Your task to perform on an android device: stop showing notifications on the lock screen Image 0: 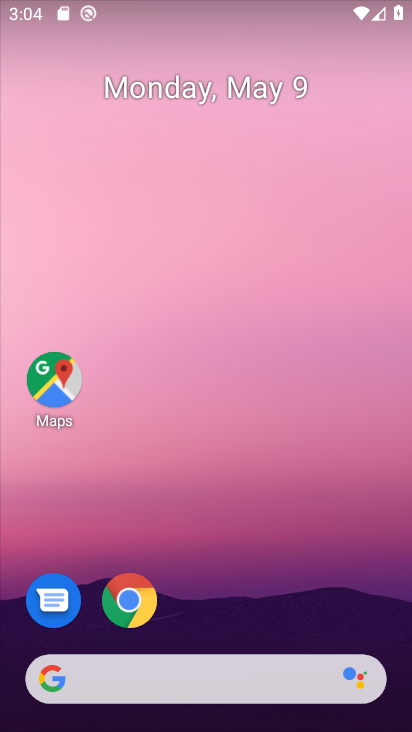
Step 0: drag from (261, 560) to (283, 143)
Your task to perform on an android device: stop showing notifications on the lock screen Image 1: 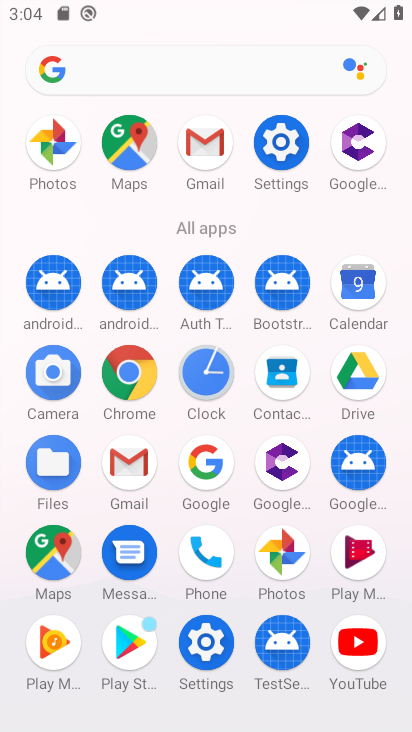
Step 1: click (206, 660)
Your task to perform on an android device: stop showing notifications on the lock screen Image 2: 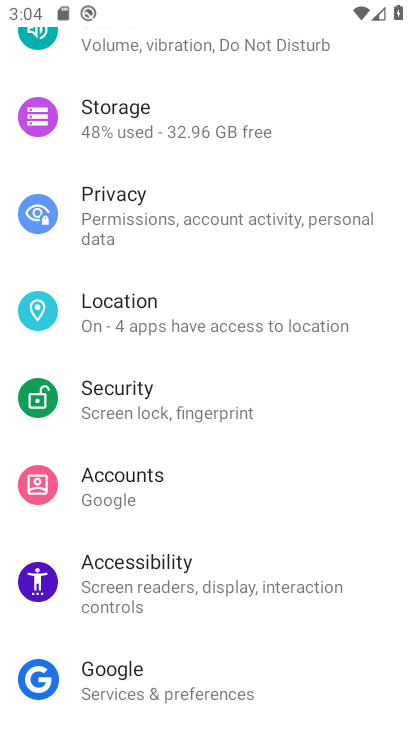
Step 2: drag from (245, 268) to (245, 554)
Your task to perform on an android device: stop showing notifications on the lock screen Image 3: 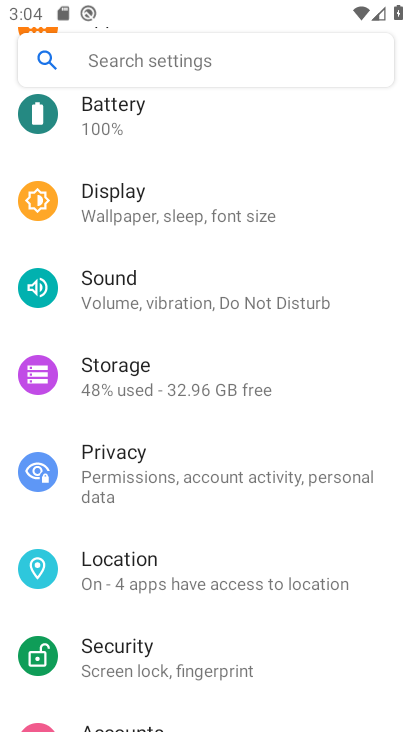
Step 3: drag from (218, 285) to (243, 608)
Your task to perform on an android device: stop showing notifications on the lock screen Image 4: 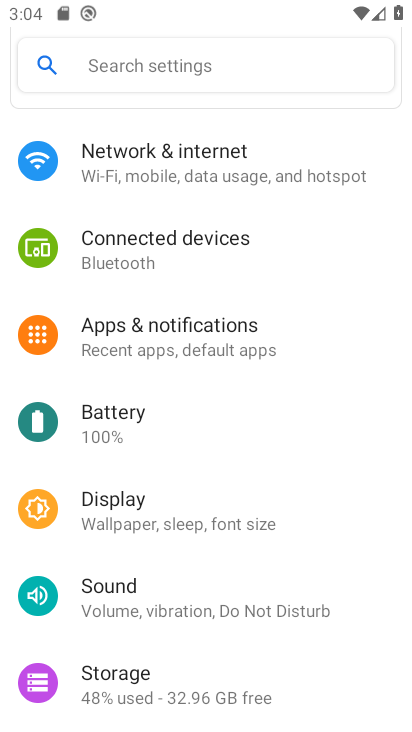
Step 4: click (207, 333)
Your task to perform on an android device: stop showing notifications on the lock screen Image 5: 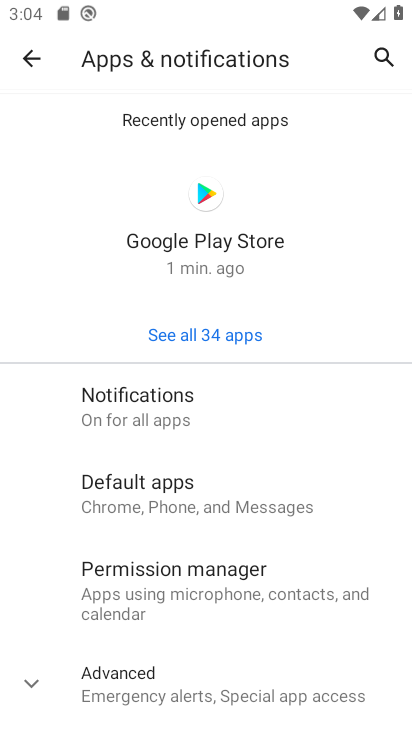
Step 5: click (161, 414)
Your task to perform on an android device: stop showing notifications on the lock screen Image 6: 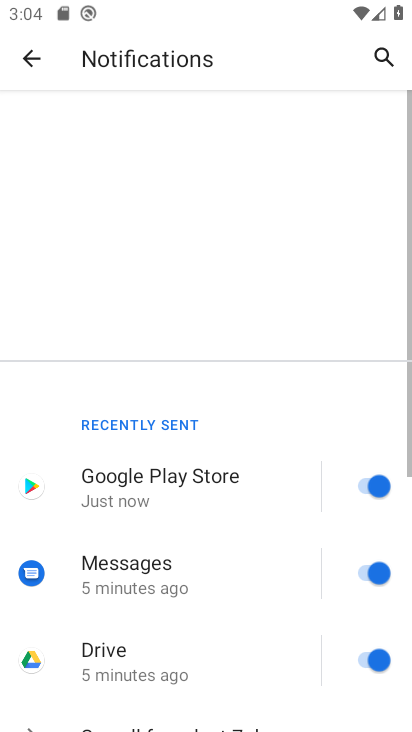
Step 6: drag from (184, 533) to (217, 221)
Your task to perform on an android device: stop showing notifications on the lock screen Image 7: 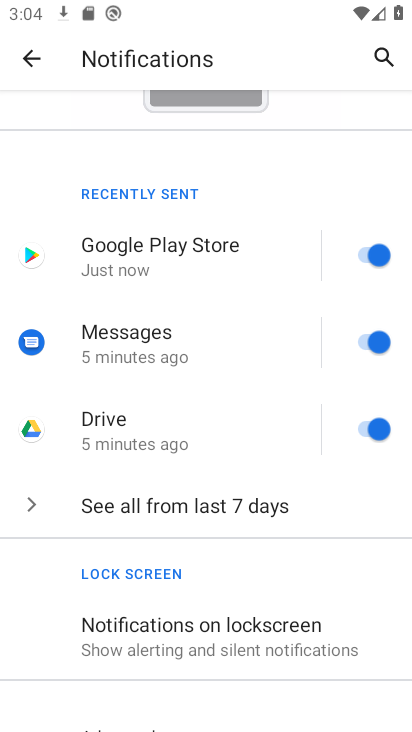
Step 7: click (177, 641)
Your task to perform on an android device: stop showing notifications on the lock screen Image 8: 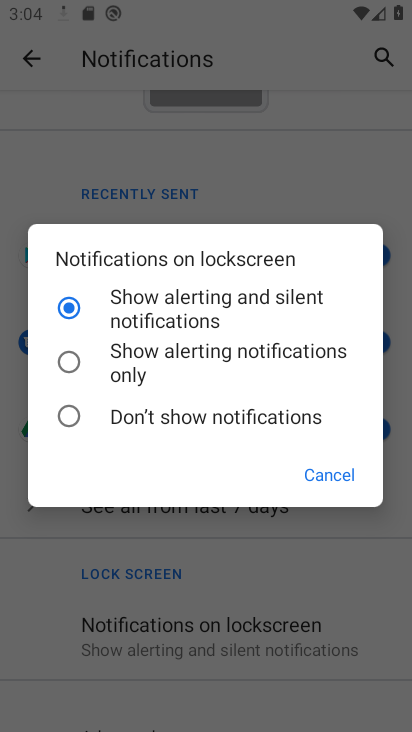
Step 8: click (206, 422)
Your task to perform on an android device: stop showing notifications on the lock screen Image 9: 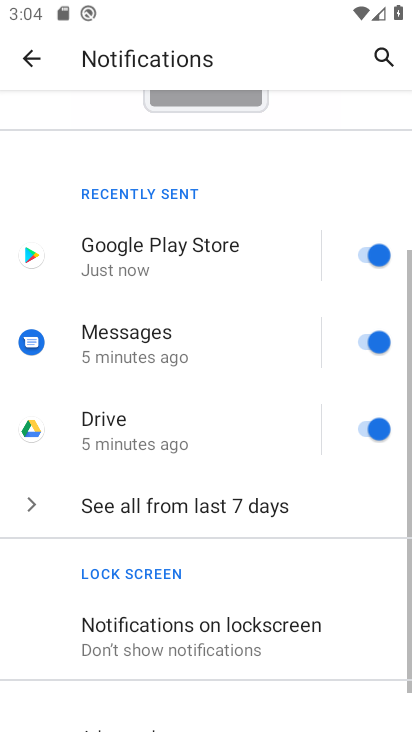
Step 9: task complete